Your task to perform on an android device: Open the stopwatch Image 0: 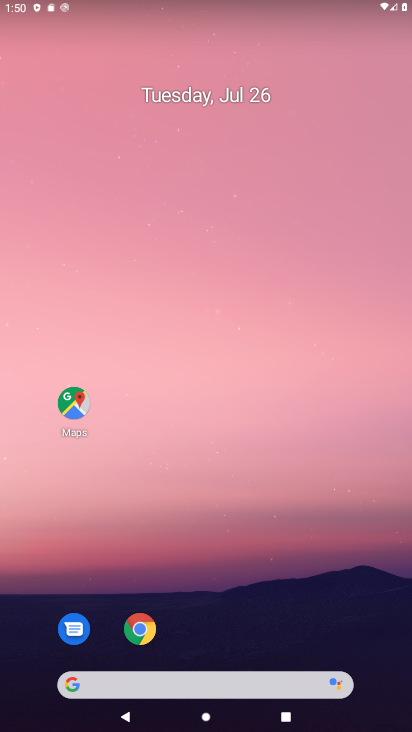
Step 0: drag from (339, 631) to (318, 141)
Your task to perform on an android device: Open the stopwatch Image 1: 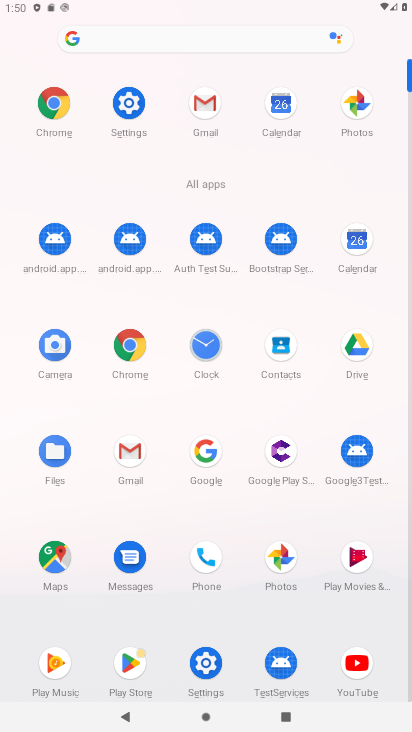
Step 1: click (208, 346)
Your task to perform on an android device: Open the stopwatch Image 2: 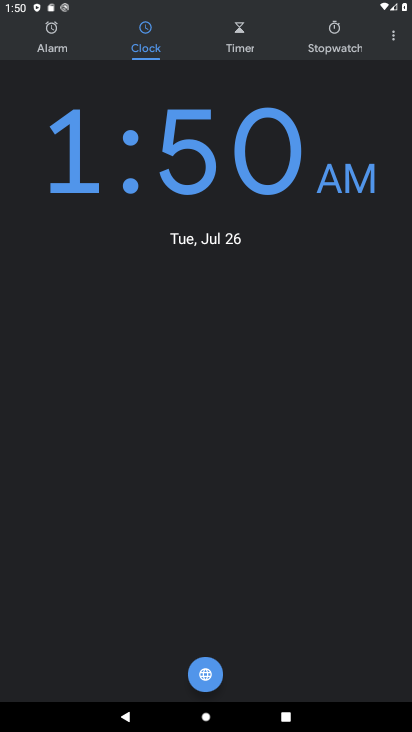
Step 2: click (330, 35)
Your task to perform on an android device: Open the stopwatch Image 3: 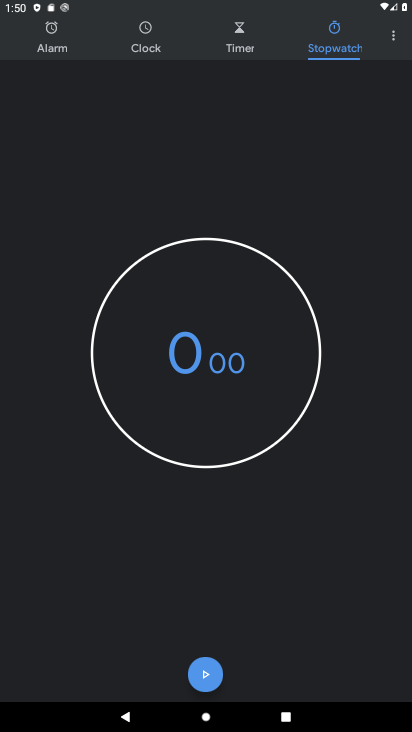
Step 3: task complete